Your task to perform on an android device: Open Reddit.com Image 0: 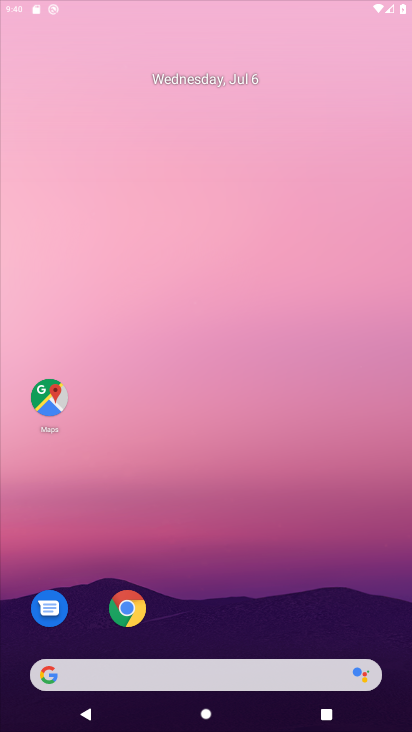
Step 0: press home button
Your task to perform on an android device: Open Reddit.com Image 1: 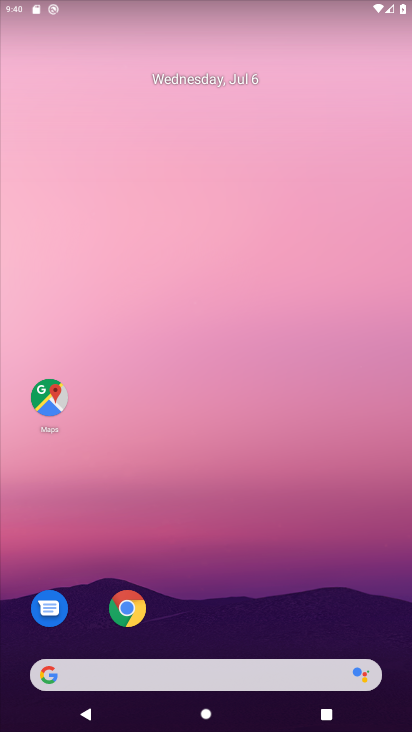
Step 1: click (232, 680)
Your task to perform on an android device: Open Reddit.com Image 2: 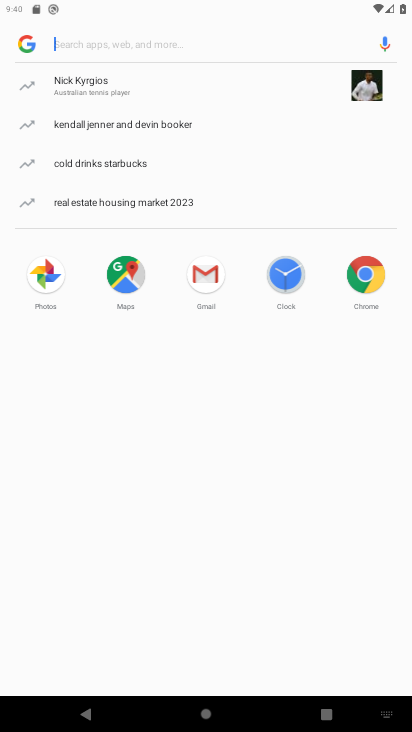
Step 2: type "reddit"
Your task to perform on an android device: Open Reddit.com Image 3: 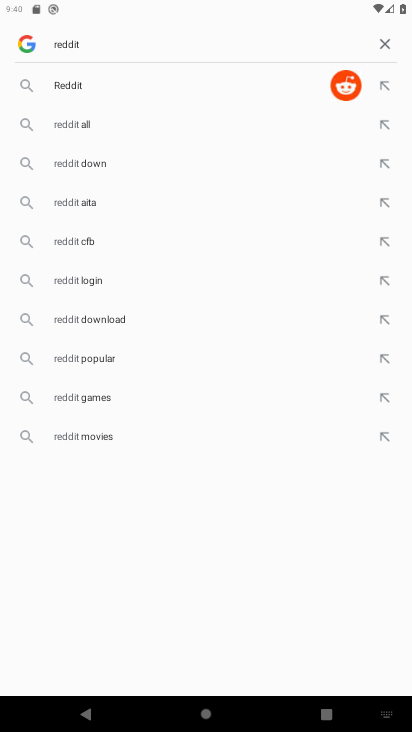
Step 3: click (86, 84)
Your task to perform on an android device: Open Reddit.com Image 4: 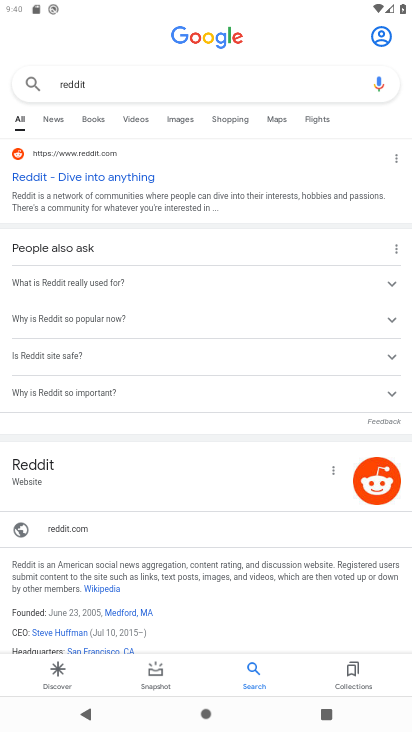
Step 4: click (86, 173)
Your task to perform on an android device: Open Reddit.com Image 5: 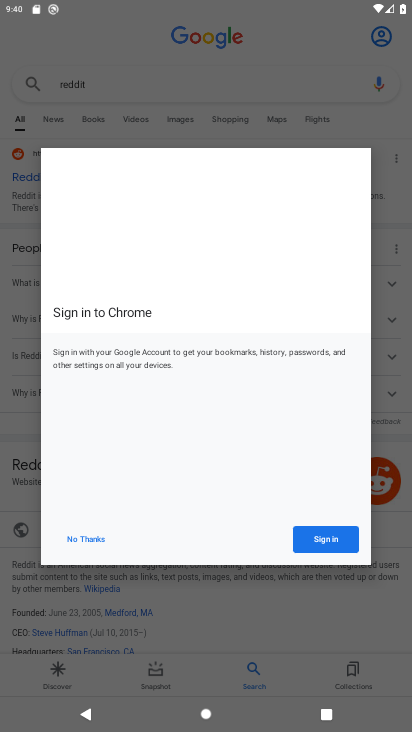
Step 5: click (12, 295)
Your task to perform on an android device: Open Reddit.com Image 6: 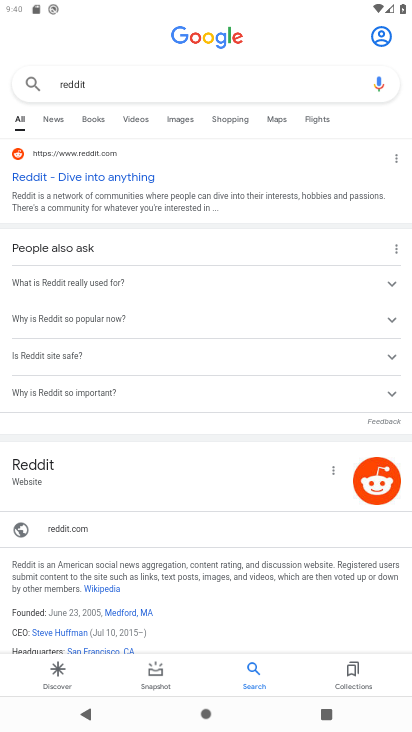
Step 6: click (36, 474)
Your task to perform on an android device: Open Reddit.com Image 7: 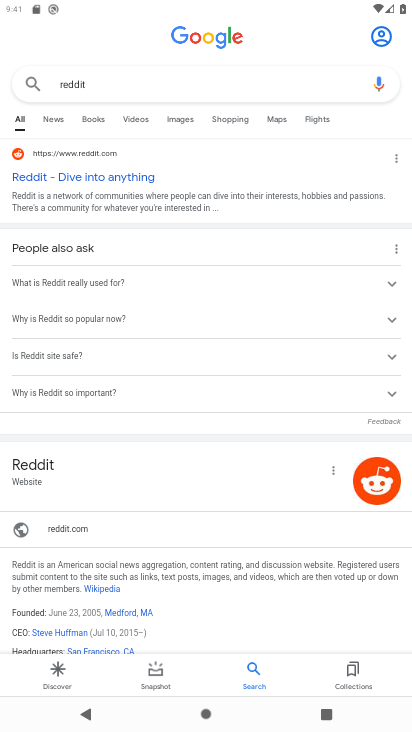
Step 7: click (94, 533)
Your task to perform on an android device: Open Reddit.com Image 8: 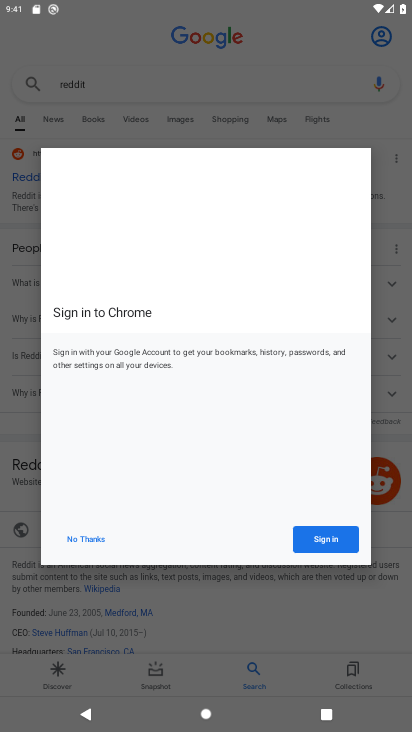
Step 8: click (321, 544)
Your task to perform on an android device: Open Reddit.com Image 9: 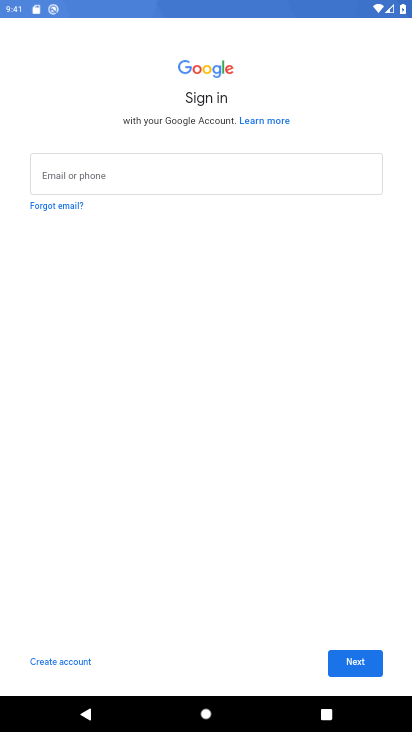
Step 9: task complete